Your task to perform on an android device: open chrome privacy settings Image 0: 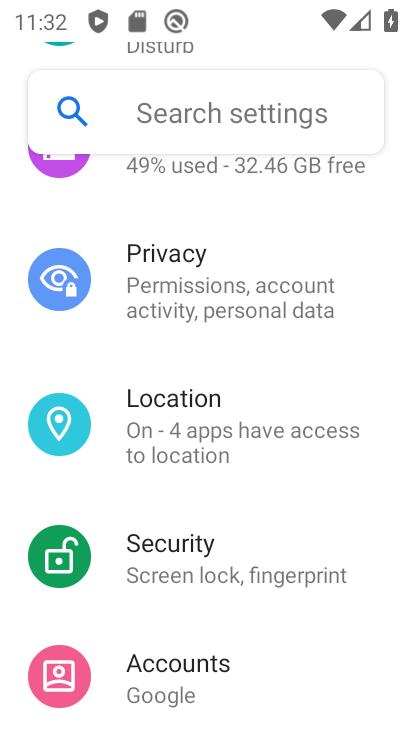
Step 0: press back button
Your task to perform on an android device: open chrome privacy settings Image 1: 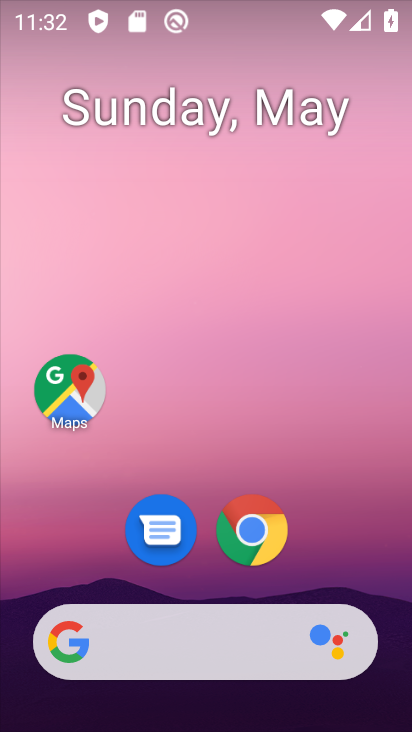
Step 1: click (239, 528)
Your task to perform on an android device: open chrome privacy settings Image 2: 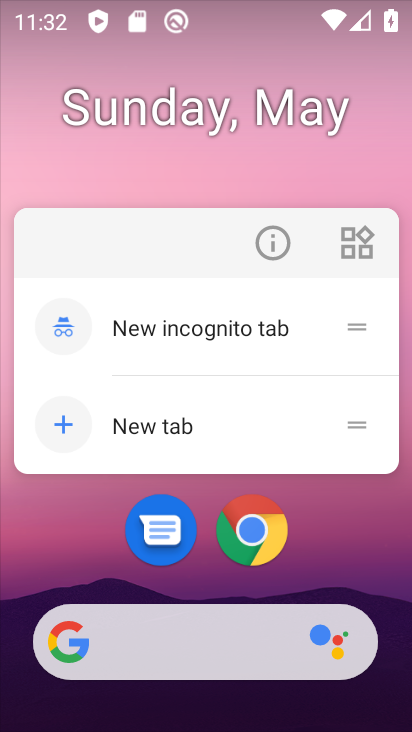
Step 2: click (254, 521)
Your task to perform on an android device: open chrome privacy settings Image 3: 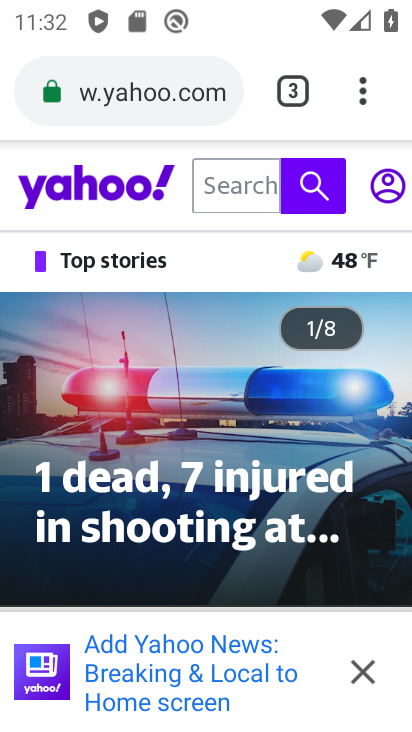
Step 3: drag from (366, 85) to (160, 554)
Your task to perform on an android device: open chrome privacy settings Image 4: 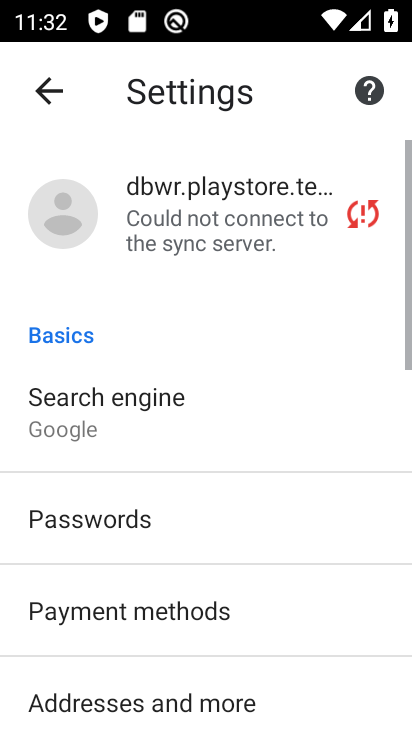
Step 4: drag from (170, 612) to (292, 102)
Your task to perform on an android device: open chrome privacy settings Image 5: 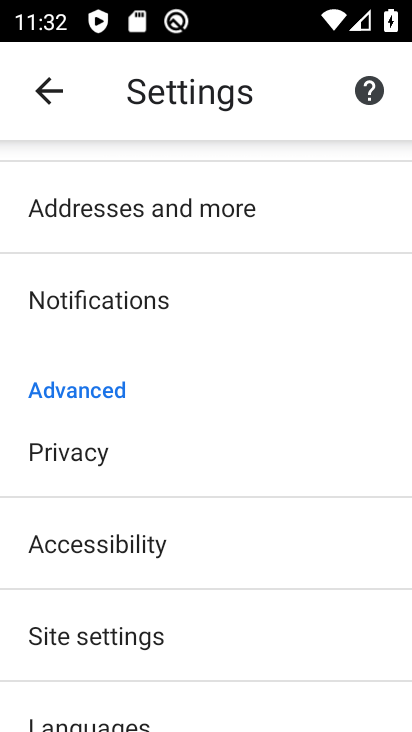
Step 5: click (84, 456)
Your task to perform on an android device: open chrome privacy settings Image 6: 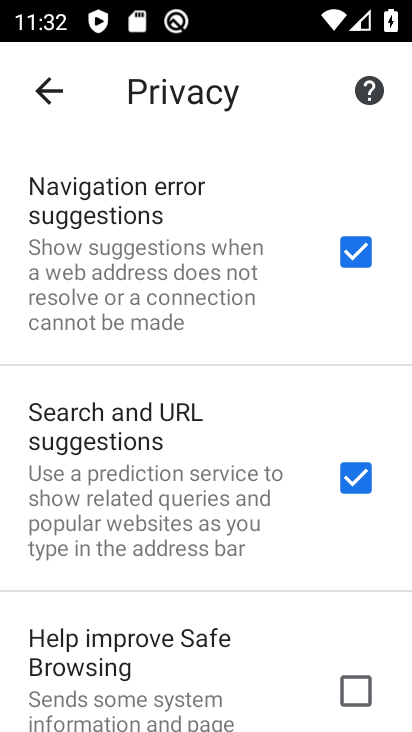
Step 6: task complete